Your task to perform on an android device: Open Google Chrome and click the shortcut for Amazon.com Image 0: 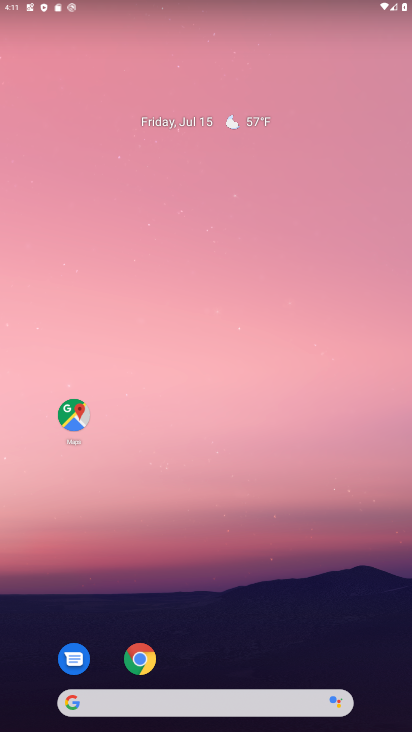
Step 0: drag from (331, 644) to (125, 0)
Your task to perform on an android device: Open Google Chrome and click the shortcut for Amazon.com Image 1: 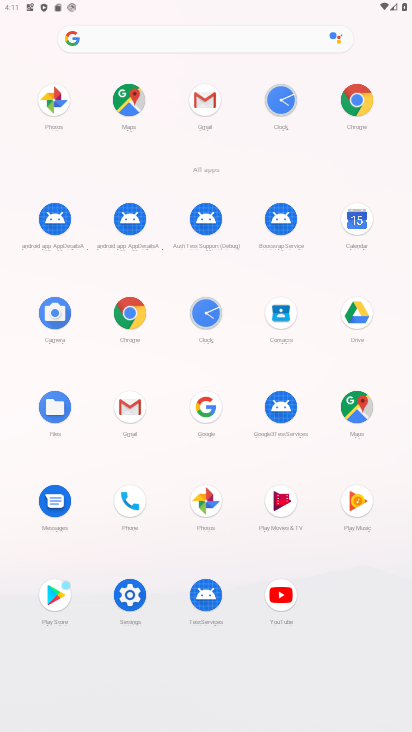
Step 1: click (365, 107)
Your task to perform on an android device: Open Google Chrome and click the shortcut for Amazon.com Image 2: 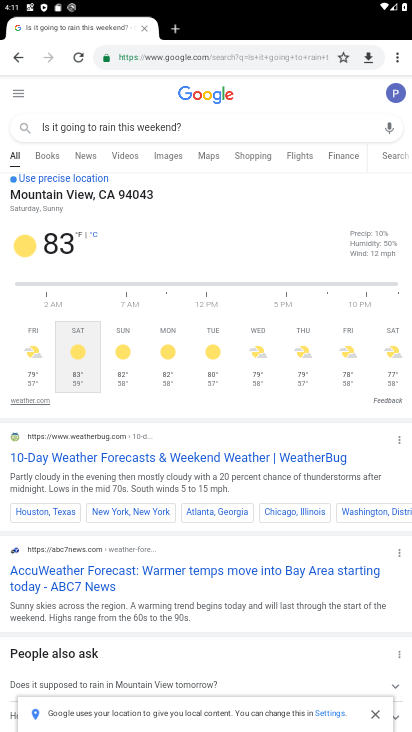
Step 2: click (174, 30)
Your task to perform on an android device: Open Google Chrome and click the shortcut for Amazon.com Image 3: 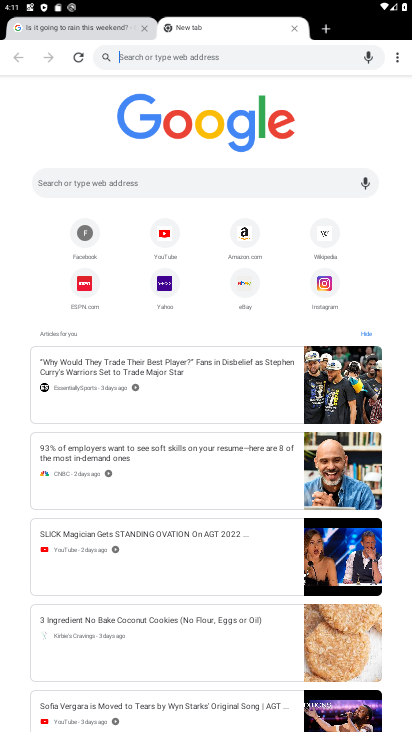
Step 3: click (240, 238)
Your task to perform on an android device: Open Google Chrome and click the shortcut for Amazon.com Image 4: 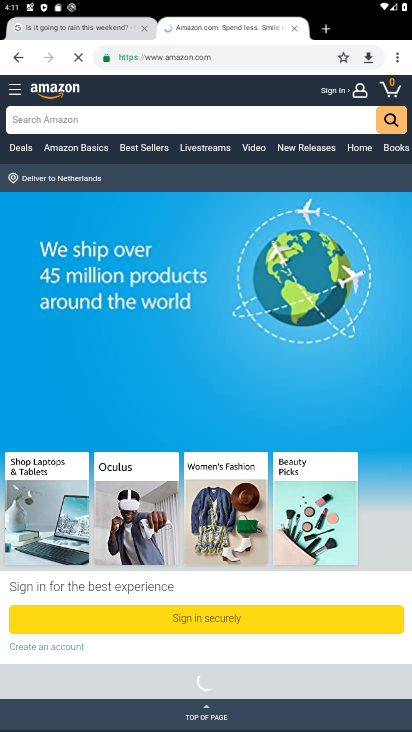
Step 4: task complete